Your task to perform on an android device: toggle data saver in the chrome app Image 0: 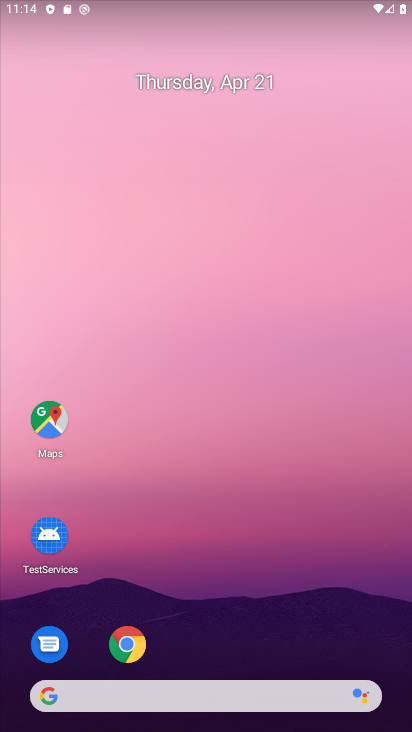
Step 0: drag from (263, 609) to (292, 214)
Your task to perform on an android device: toggle data saver in the chrome app Image 1: 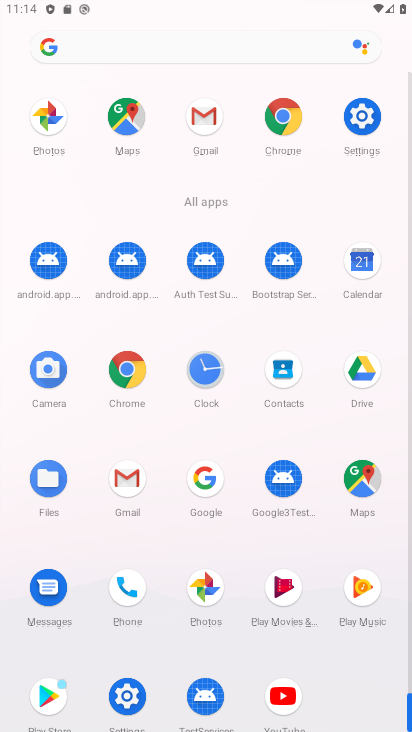
Step 1: click (121, 382)
Your task to perform on an android device: toggle data saver in the chrome app Image 2: 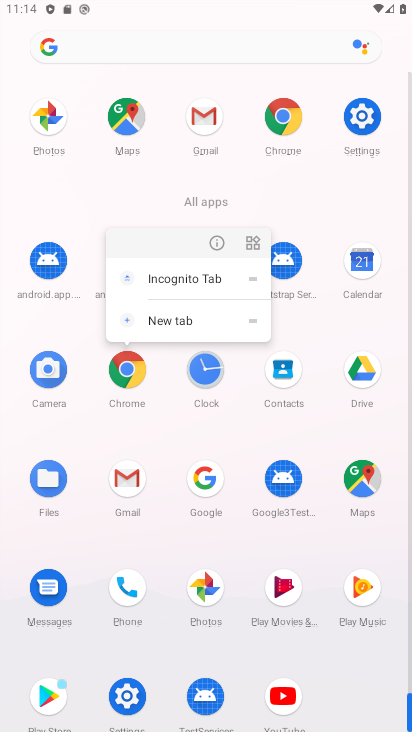
Step 2: click (127, 377)
Your task to perform on an android device: toggle data saver in the chrome app Image 3: 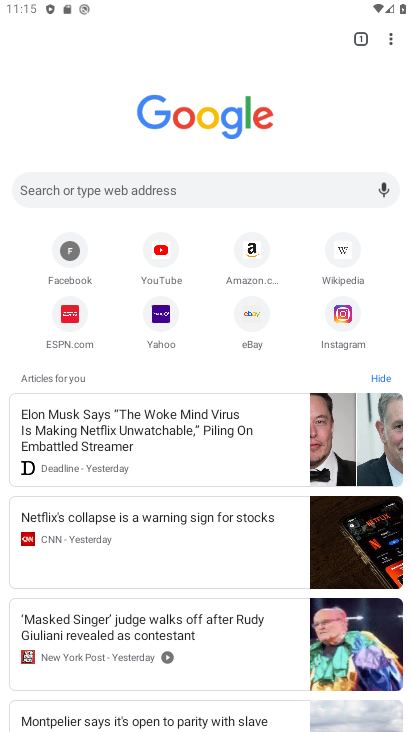
Step 3: drag from (391, 37) to (267, 336)
Your task to perform on an android device: toggle data saver in the chrome app Image 4: 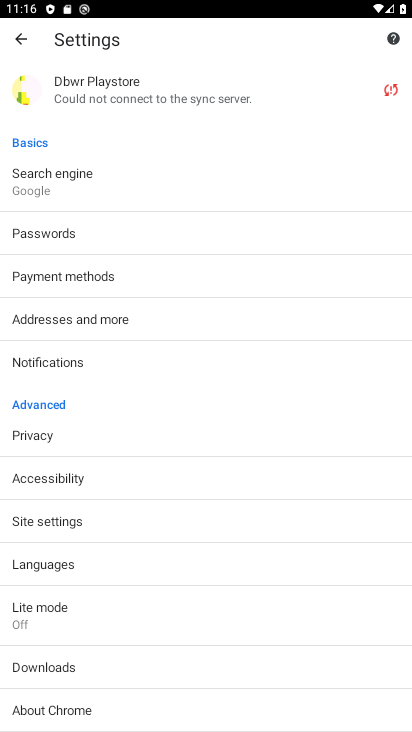
Step 4: drag from (105, 543) to (180, 207)
Your task to perform on an android device: toggle data saver in the chrome app Image 5: 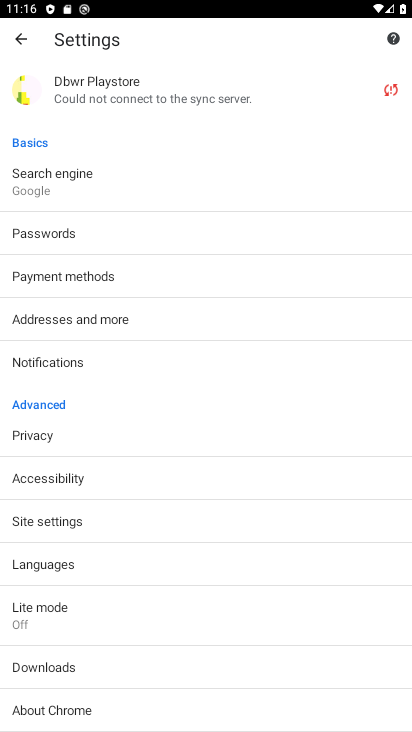
Step 5: click (79, 616)
Your task to perform on an android device: toggle data saver in the chrome app Image 6: 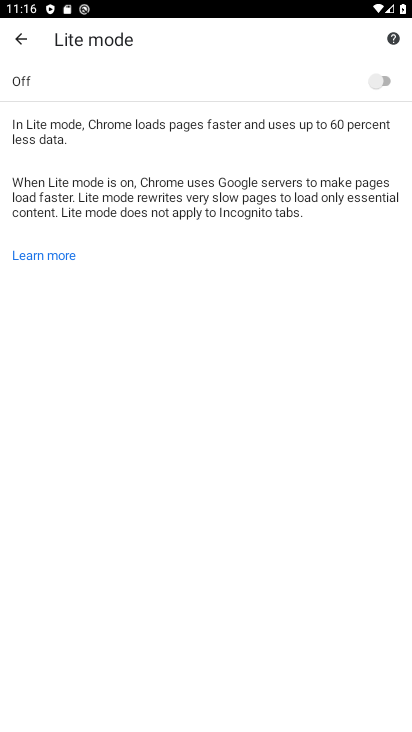
Step 6: click (383, 84)
Your task to perform on an android device: toggle data saver in the chrome app Image 7: 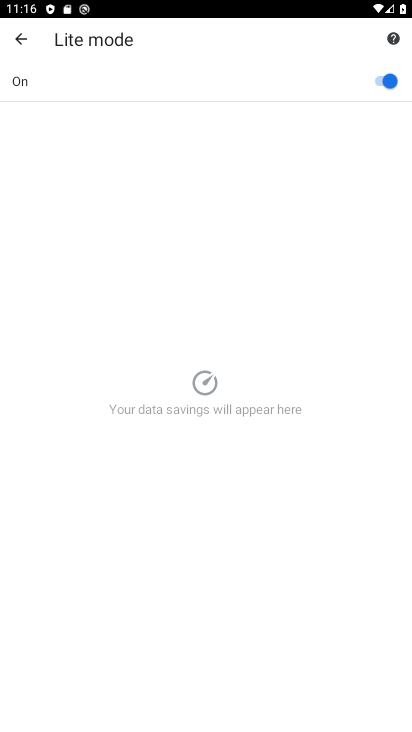
Step 7: task complete